Your task to perform on an android device: Go to wifi settings Image 0: 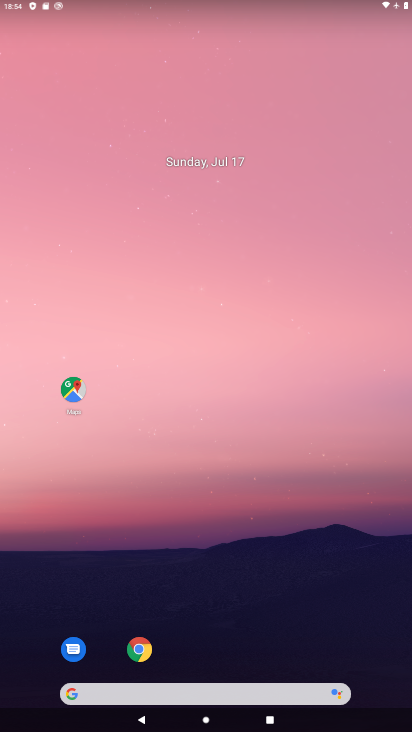
Step 0: drag from (239, 593) to (155, 139)
Your task to perform on an android device: Go to wifi settings Image 1: 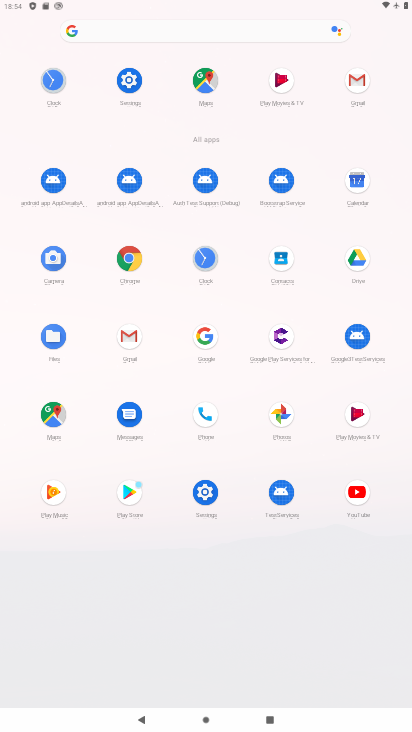
Step 1: click (129, 78)
Your task to perform on an android device: Go to wifi settings Image 2: 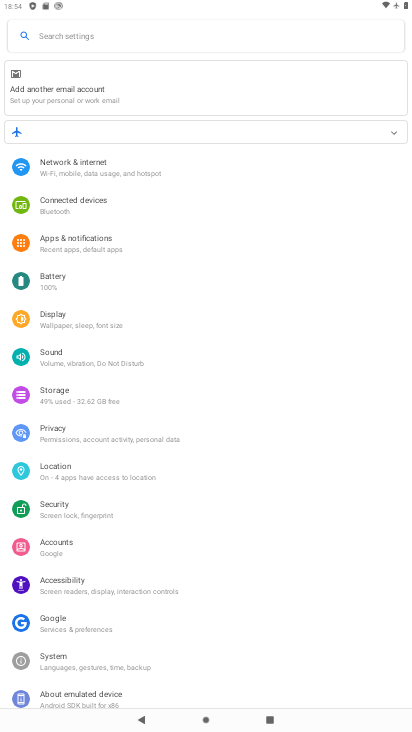
Step 2: click (78, 168)
Your task to perform on an android device: Go to wifi settings Image 3: 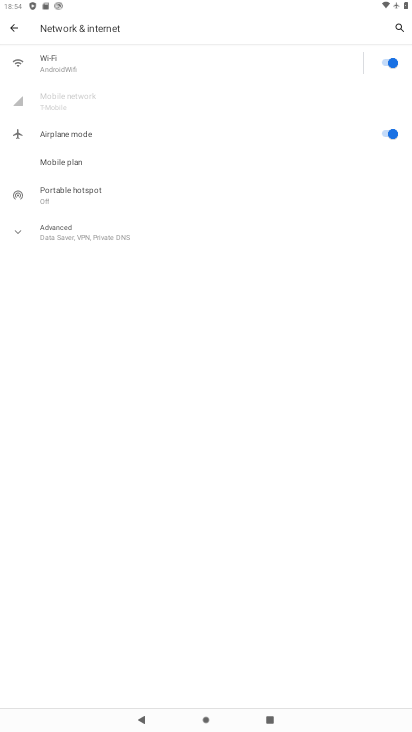
Step 3: click (94, 59)
Your task to perform on an android device: Go to wifi settings Image 4: 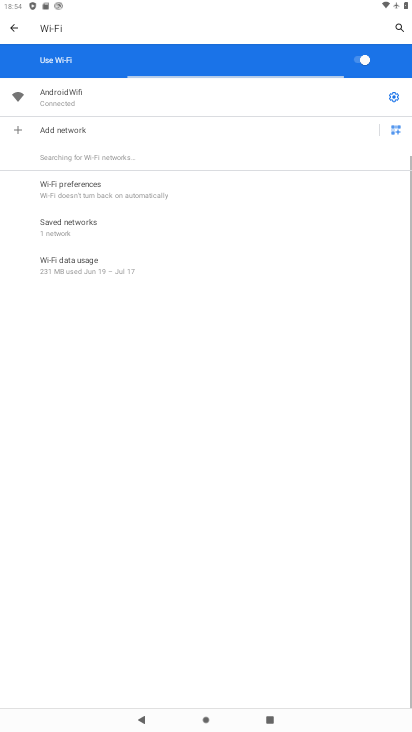
Step 4: task complete